Your task to perform on an android device: find which apps use the phone's location Image 0: 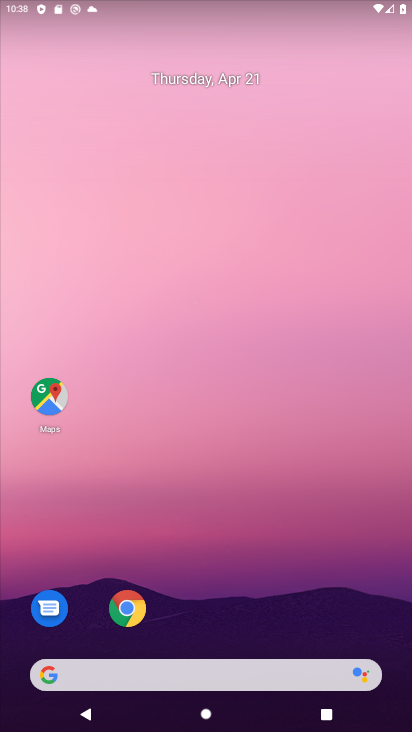
Step 0: drag from (217, 556) to (131, 174)
Your task to perform on an android device: find which apps use the phone's location Image 1: 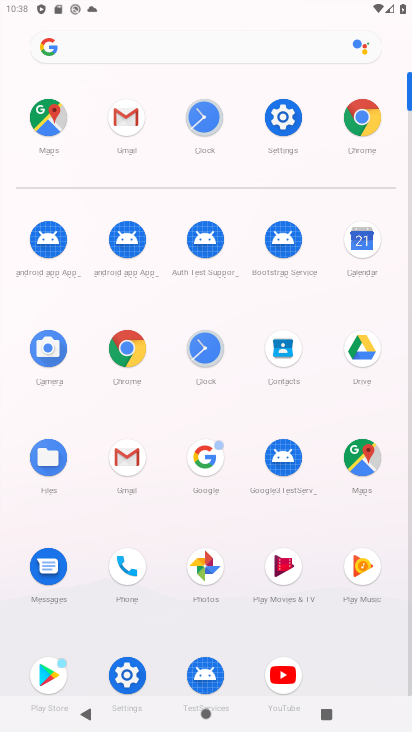
Step 1: click (276, 125)
Your task to perform on an android device: find which apps use the phone's location Image 2: 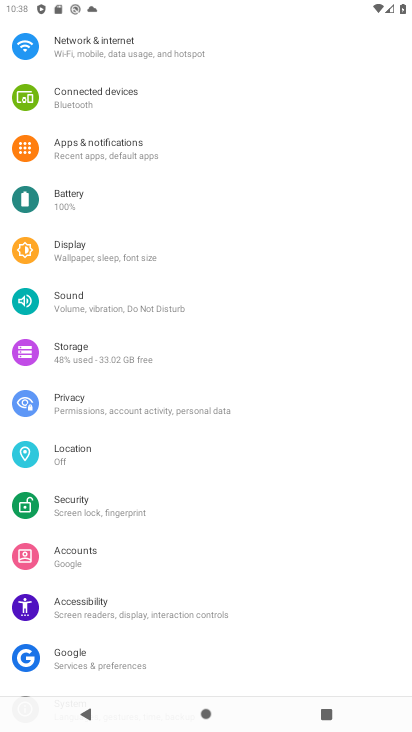
Step 2: click (76, 454)
Your task to perform on an android device: find which apps use the phone's location Image 3: 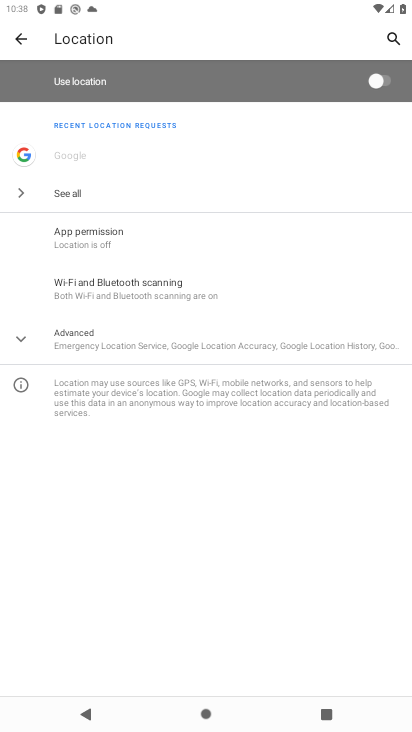
Step 3: click (88, 234)
Your task to perform on an android device: find which apps use the phone's location Image 4: 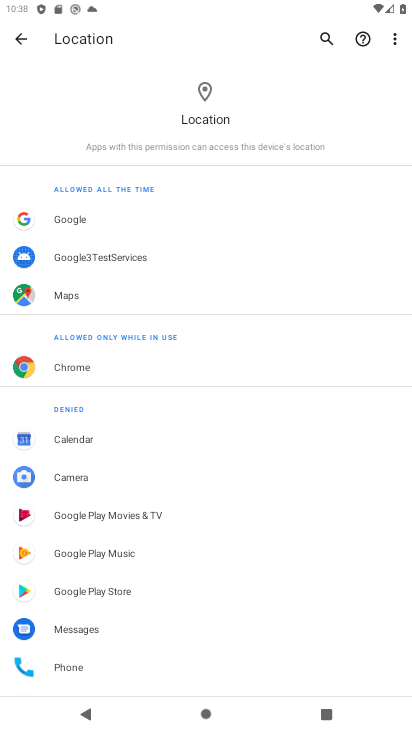
Step 4: task complete